Your task to perform on an android device: open wifi settings Image 0: 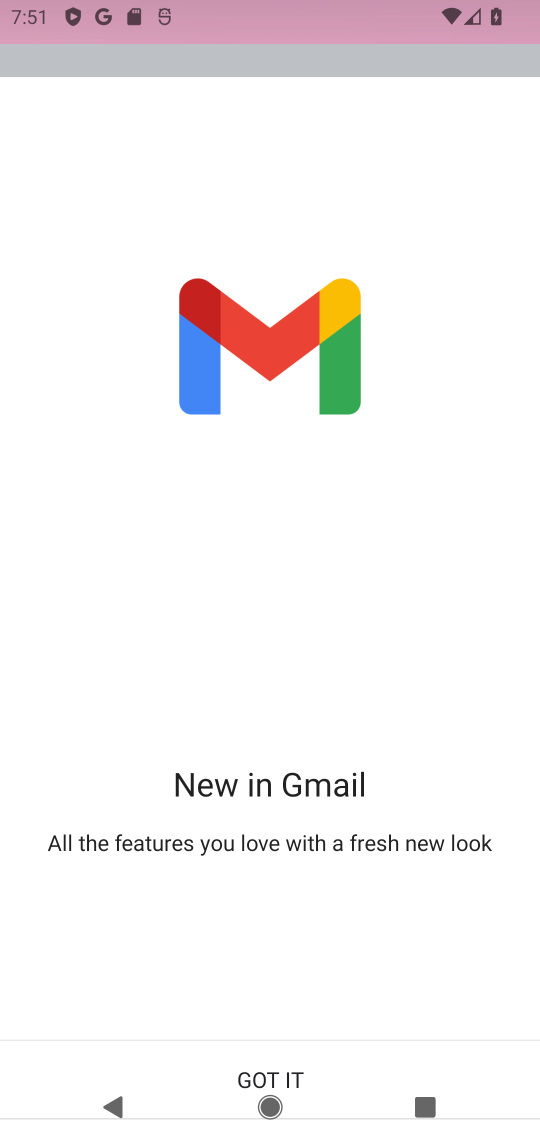
Step 0: press home button
Your task to perform on an android device: open wifi settings Image 1: 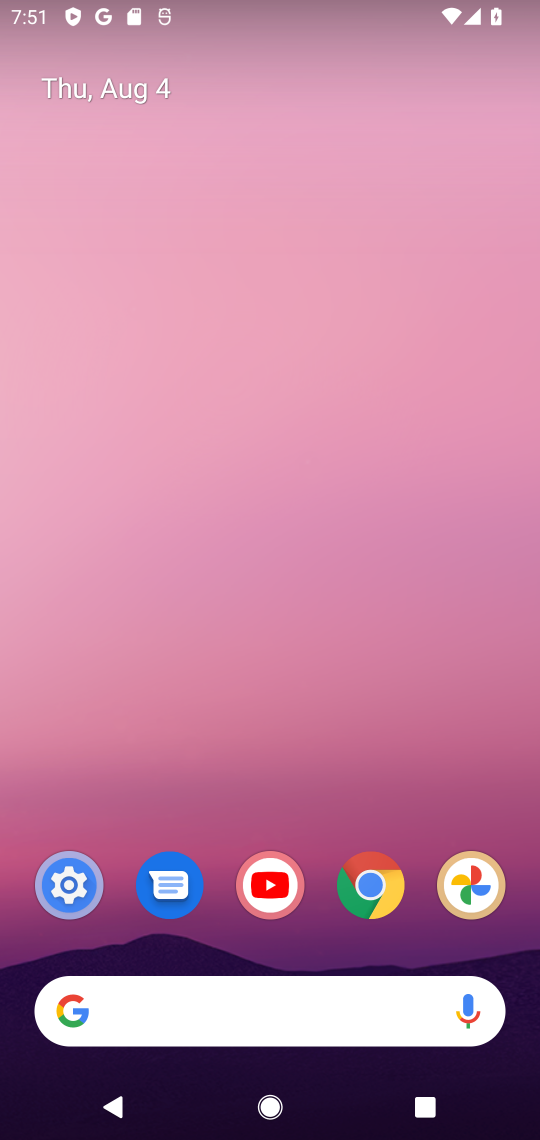
Step 1: drag from (310, 824) to (376, 4)
Your task to perform on an android device: open wifi settings Image 2: 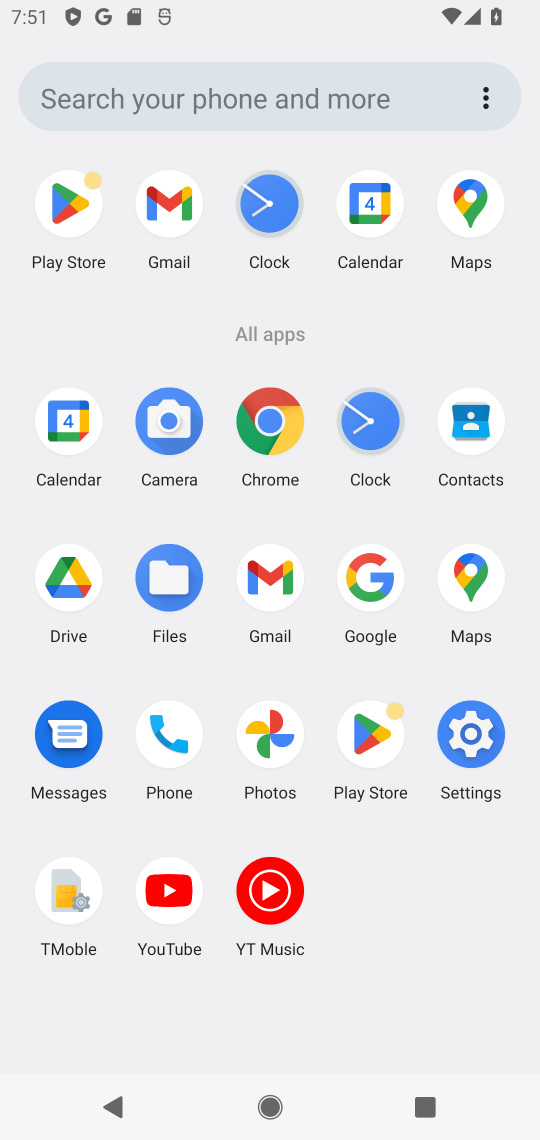
Step 2: click (469, 725)
Your task to perform on an android device: open wifi settings Image 3: 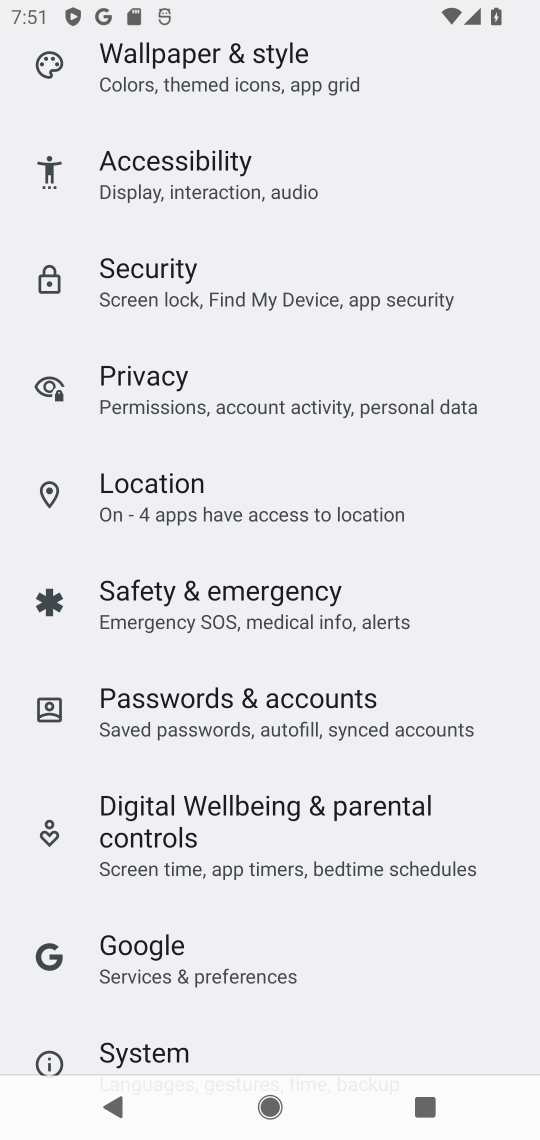
Step 3: drag from (237, 132) to (291, 1070)
Your task to perform on an android device: open wifi settings Image 4: 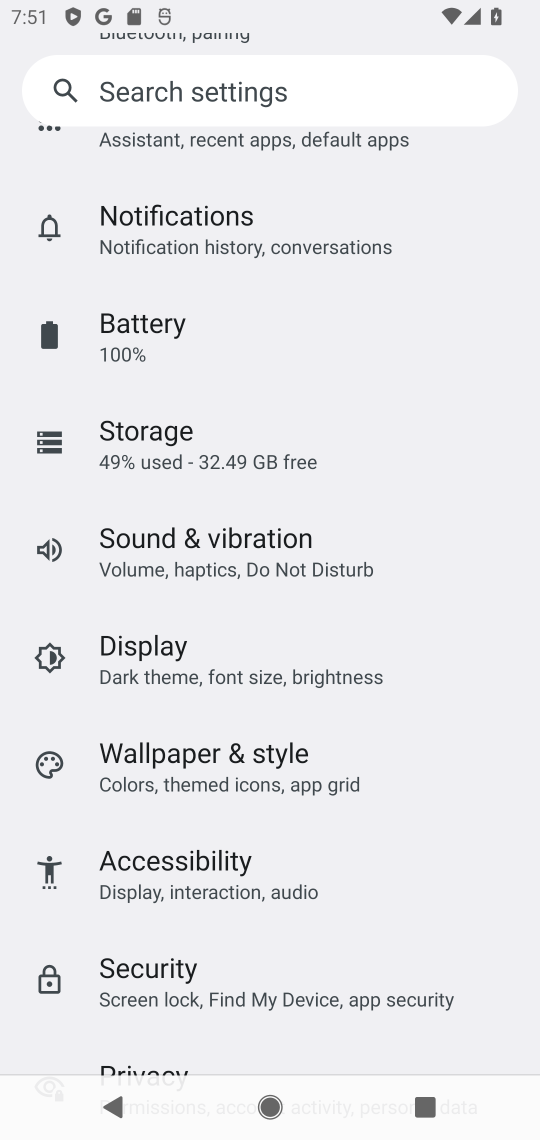
Step 4: drag from (255, 207) to (289, 943)
Your task to perform on an android device: open wifi settings Image 5: 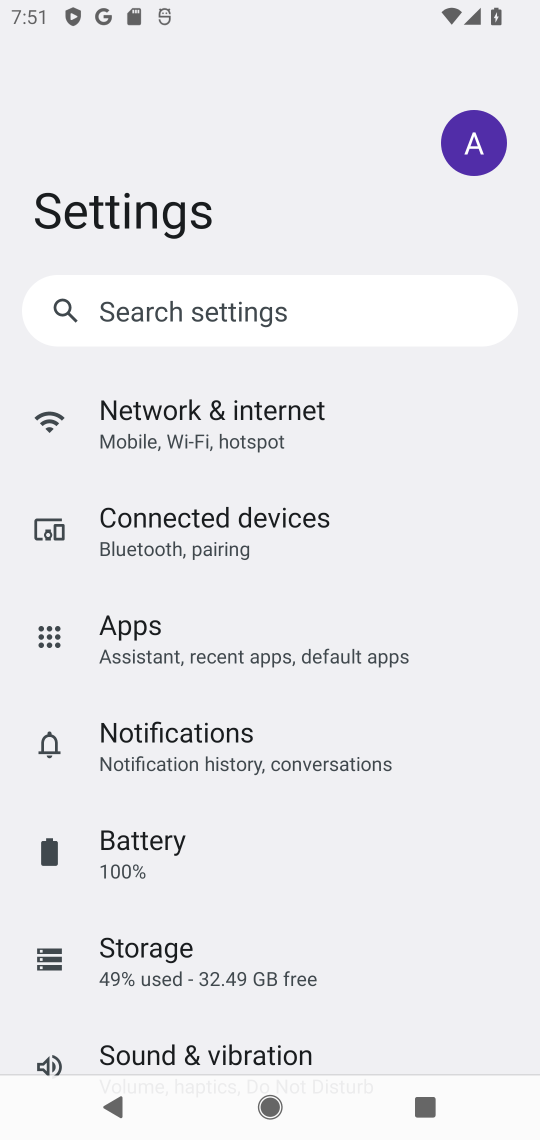
Step 5: click (297, 421)
Your task to perform on an android device: open wifi settings Image 6: 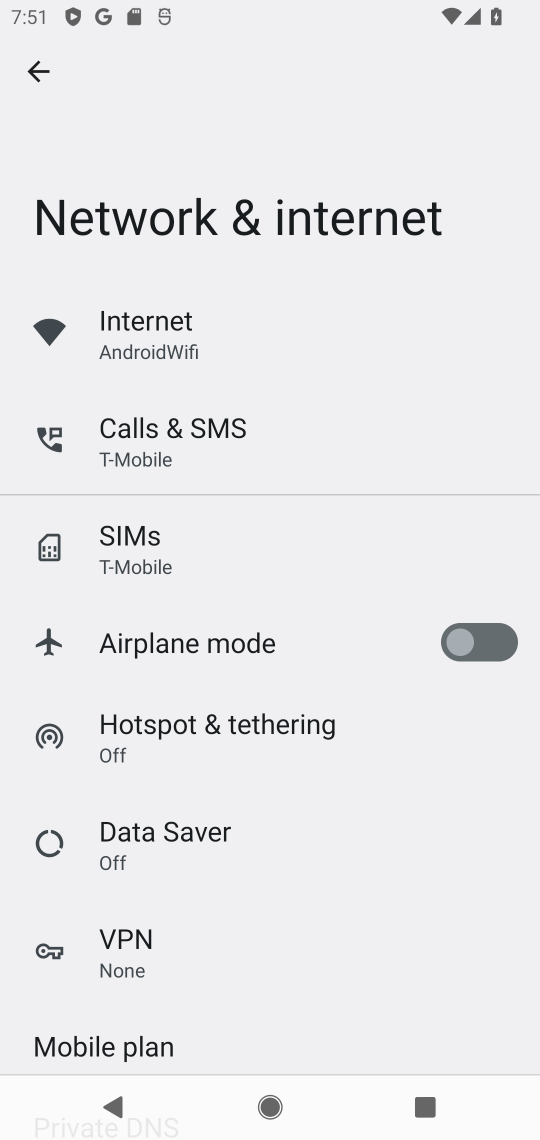
Step 6: click (209, 329)
Your task to perform on an android device: open wifi settings Image 7: 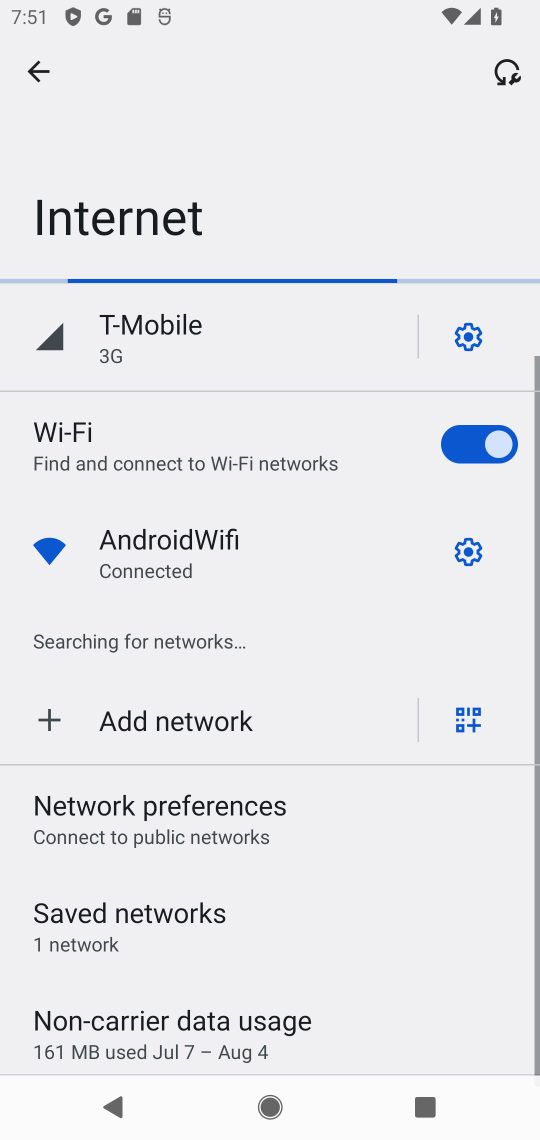
Step 7: task complete